Your task to perform on an android device: Open Google Image 0: 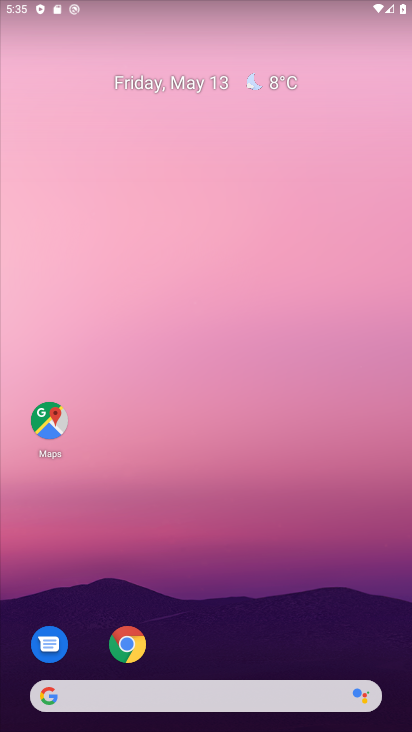
Step 0: click (44, 699)
Your task to perform on an android device: Open Google Image 1: 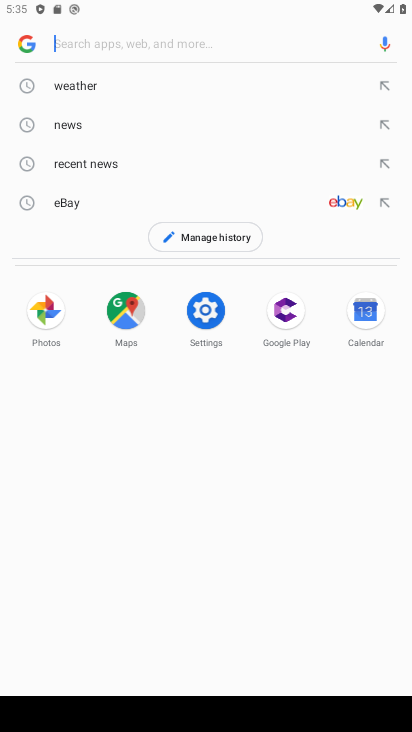
Step 1: click (31, 40)
Your task to perform on an android device: Open Google Image 2: 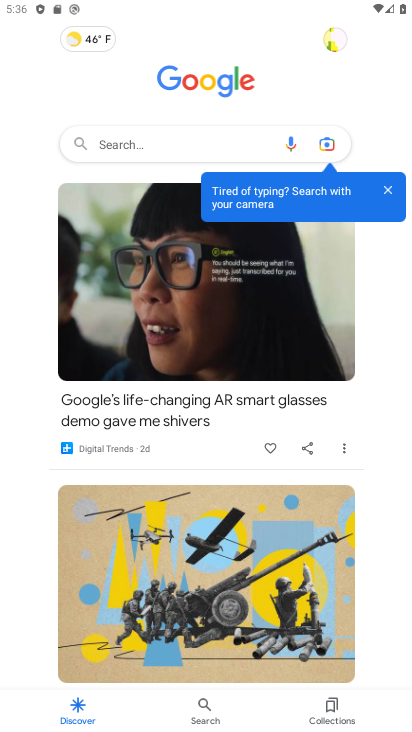
Step 2: task complete